Your task to perform on an android device: open app "Google Play services" Image 0: 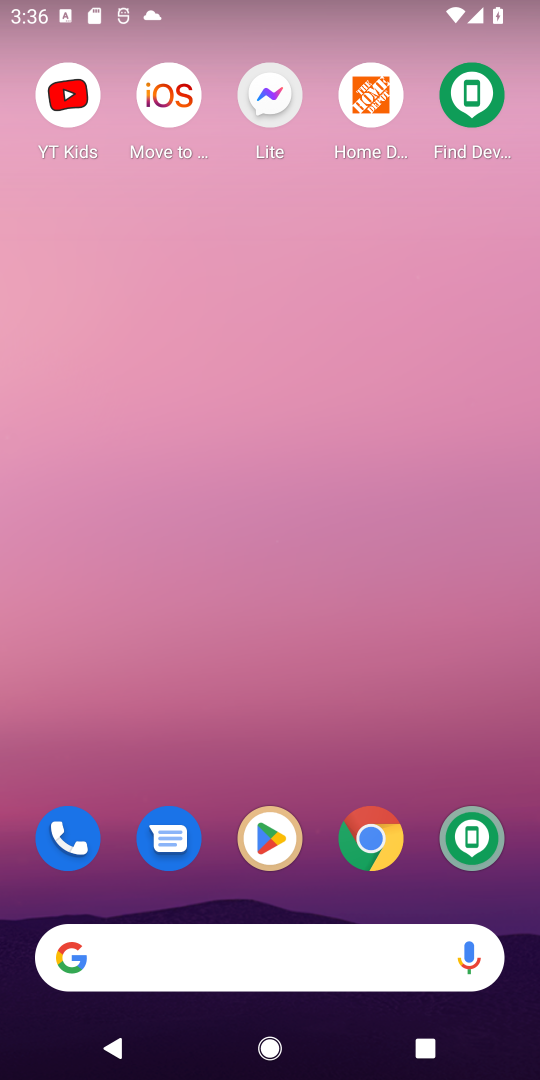
Step 0: press home button
Your task to perform on an android device: open app "Google Play services" Image 1: 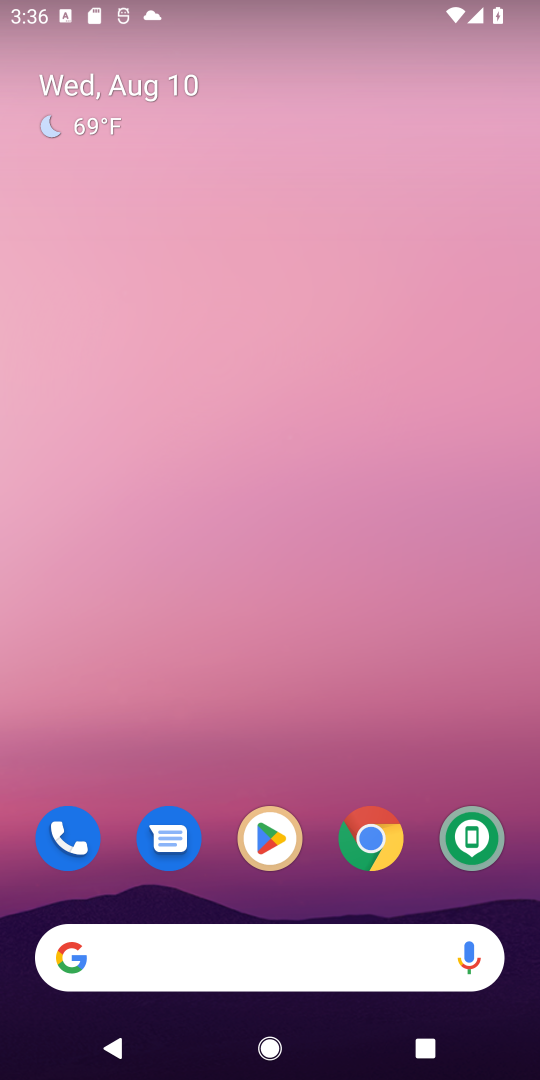
Step 1: click (280, 827)
Your task to perform on an android device: open app "Google Play services" Image 2: 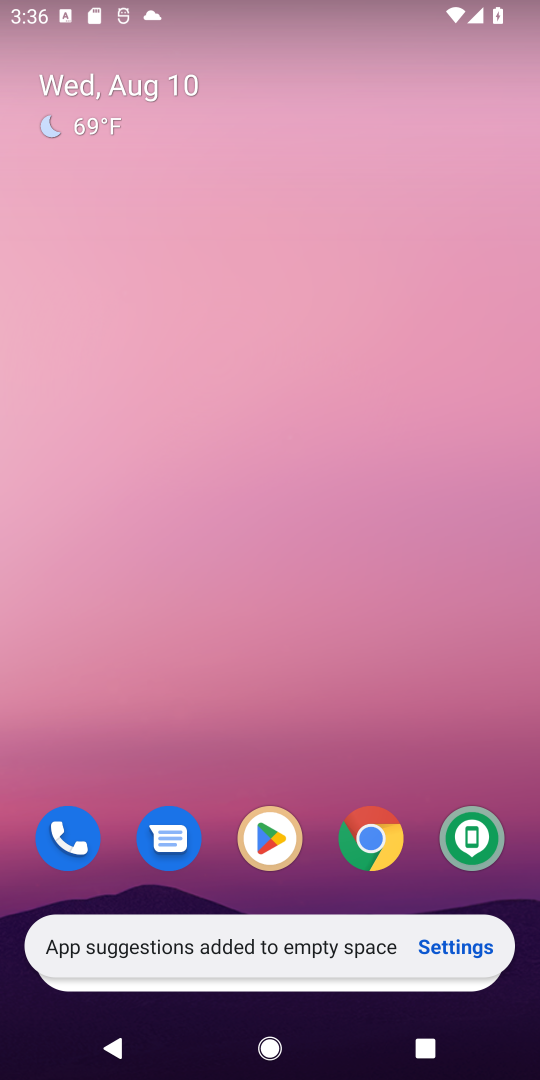
Step 2: click (280, 827)
Your task to perform on an android device: open app "Google Play services" Image 3: 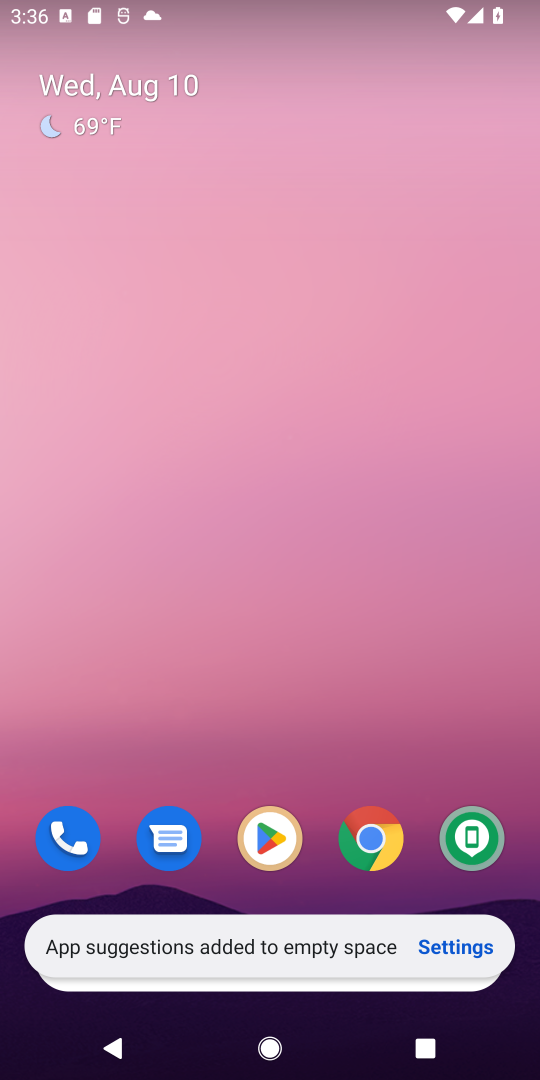
Step 3: click (280, 827)
Your task to perform on an android device: open app "Google Play services" Image 4: 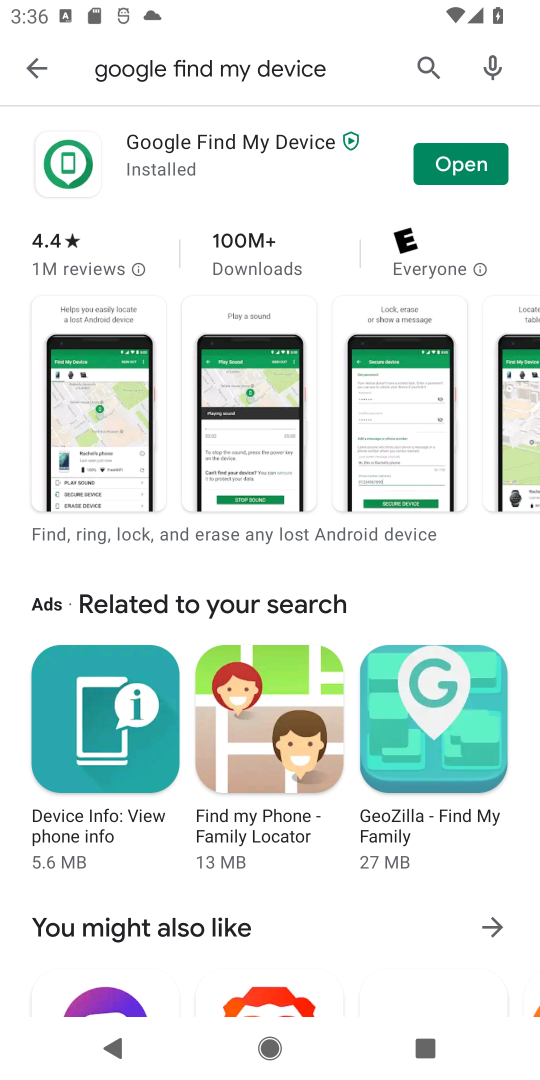
Step 4: click (429, 70)
Your task to perform on an android device: open app "Google Play services" Image 5: 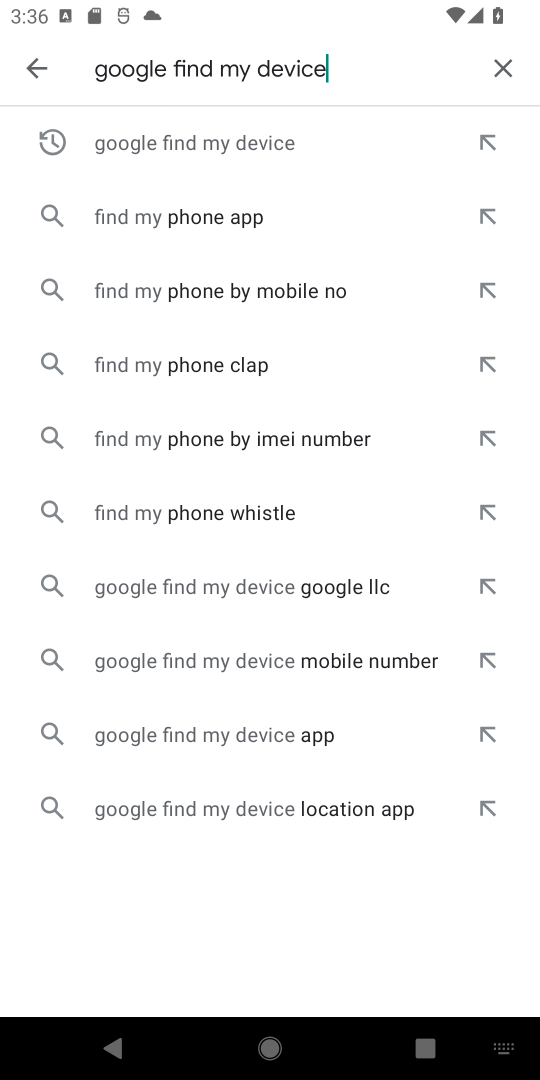
Step 5: click (503, 65)
Your task to perform on an android device: open app "Google Play services" Image 6: 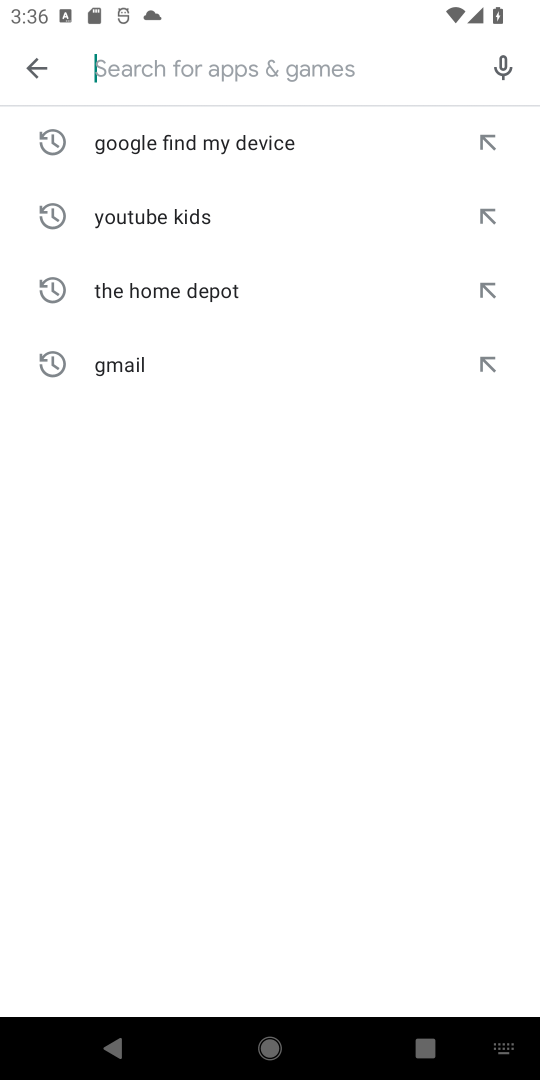
Step 6: type "Google Play services"
Your task to perform on an android device: open app "Google Play services" Image 7: 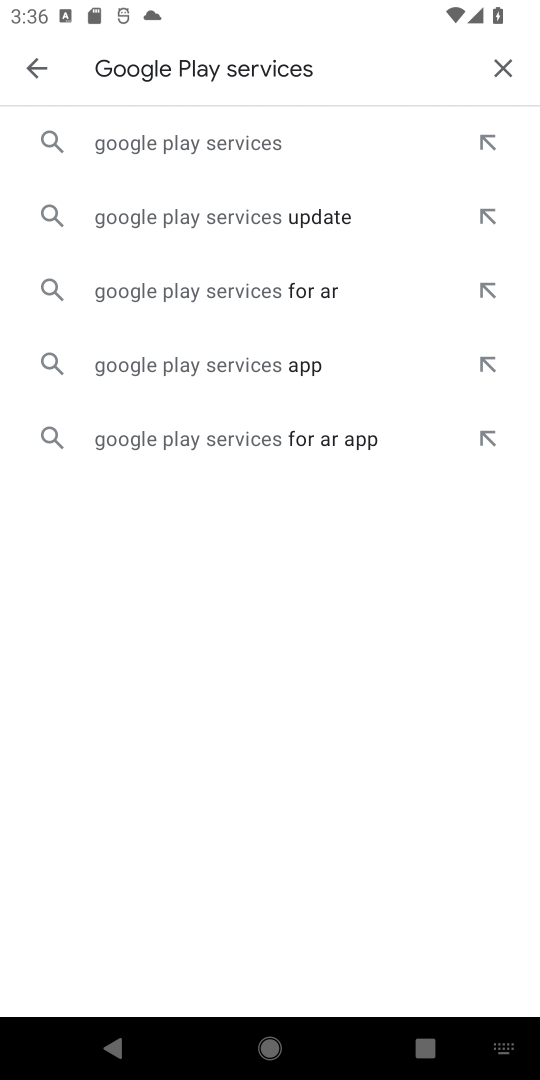
Step 7: click (251, 139)
Your task to perform on an android device: open app "Google Play services" Image 8: 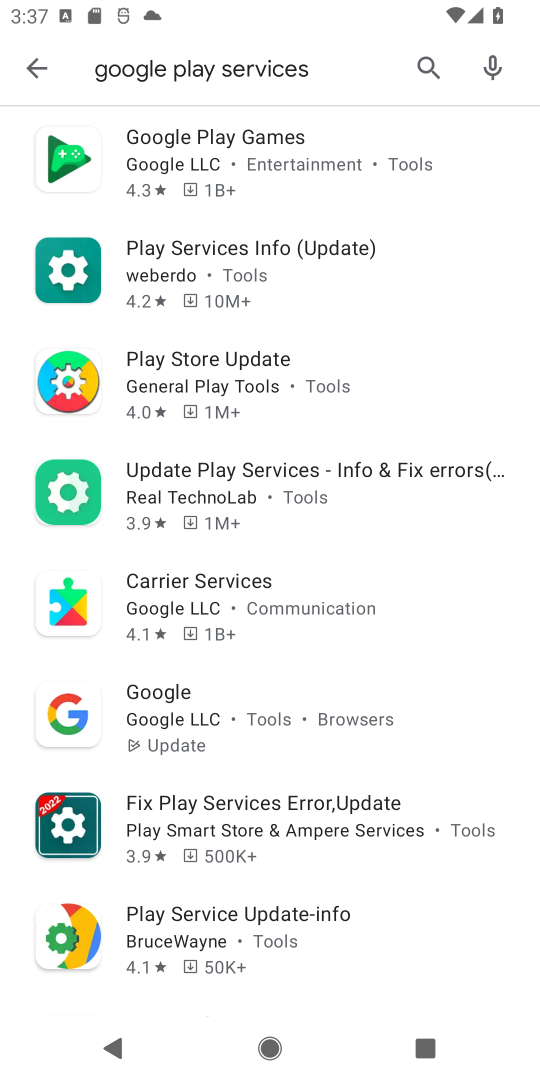
Step 8: task complete